Your task to perform on an android device: Open Google Maps Image 0: 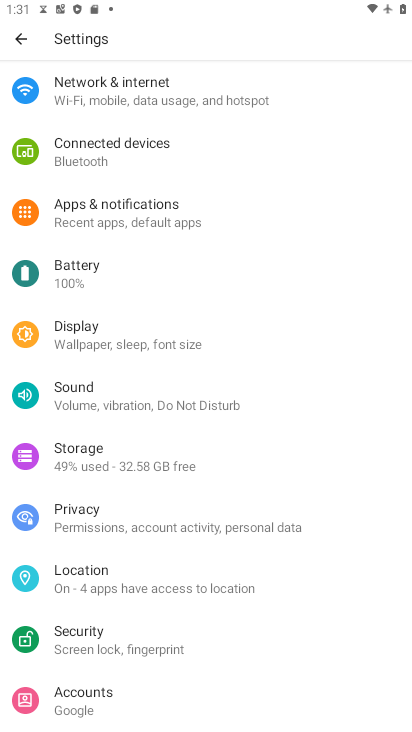
Step 0: press home button
Your task to perform on an android device: Open Google Maps Image 1: 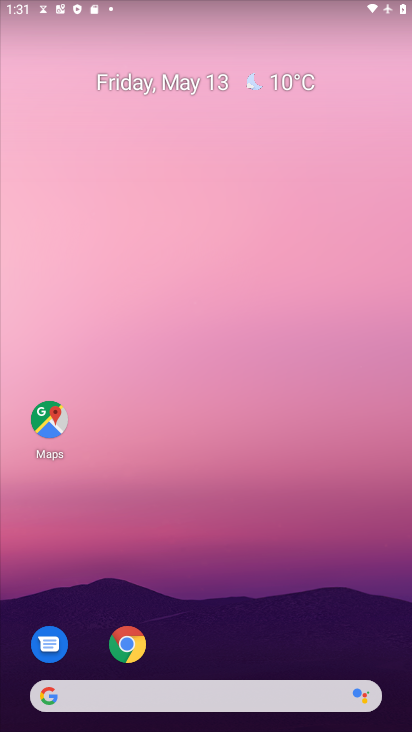
Step 1: drag from (220, 728) to (220, 132)
Your task to perform on an android device: Open Google Maps Image 2: 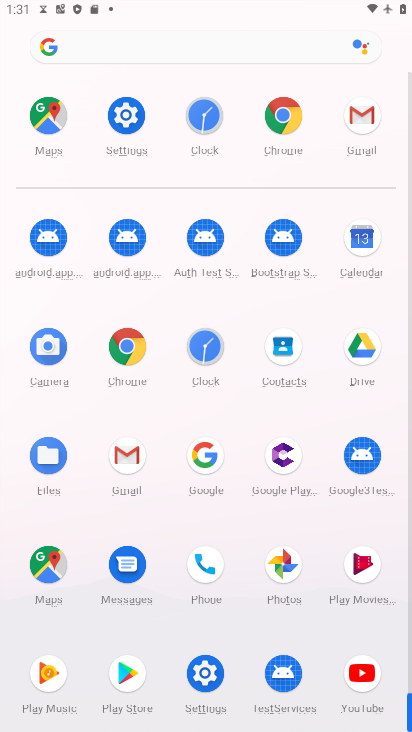
Step 2: click (49, 555)
Your task to perform on an android device: Open Google Maps Image 3: 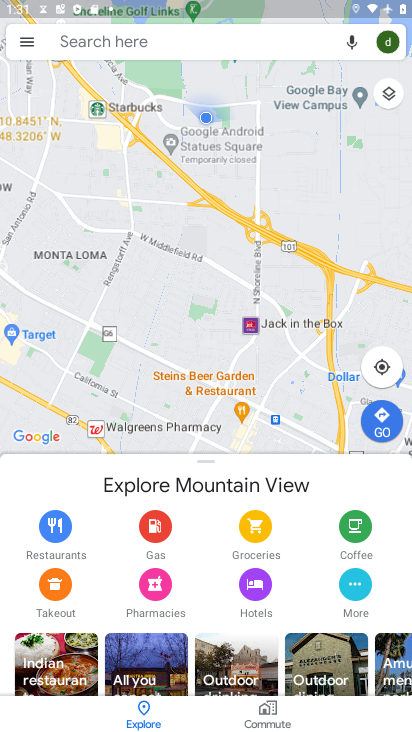
Step 3: task complete